Your task to perform on an android device: toggle airplane mode Image 0: 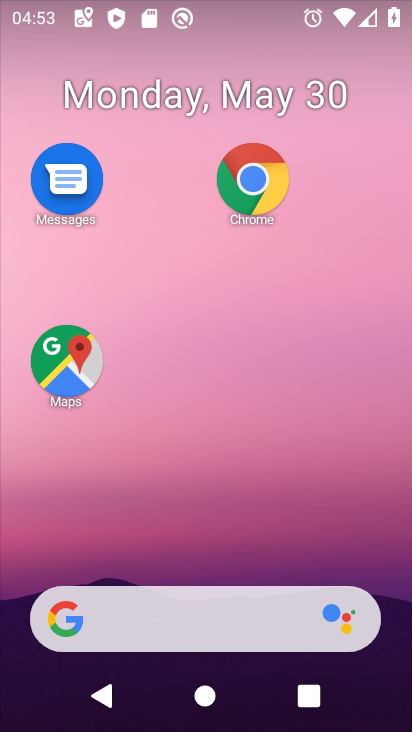
Step 0: drag from (143, 541) to (129, 123)
Your task to perform on an android device: toggle airplane mode Image 1: 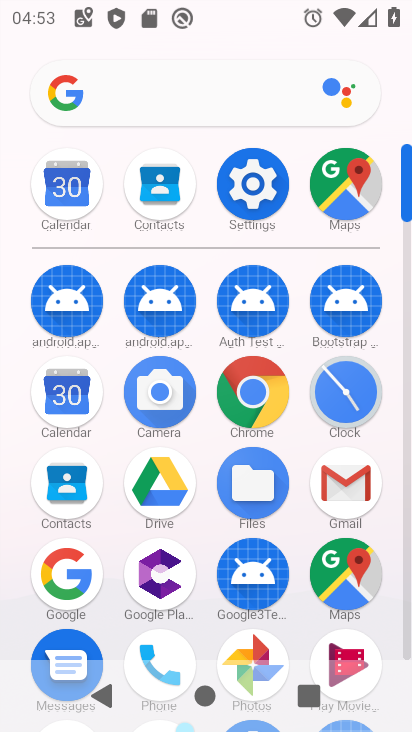
Step 1: drag from (199, 543) to (194, 193)
Your task to perform on an android device: toggle airplane mode Image 2: 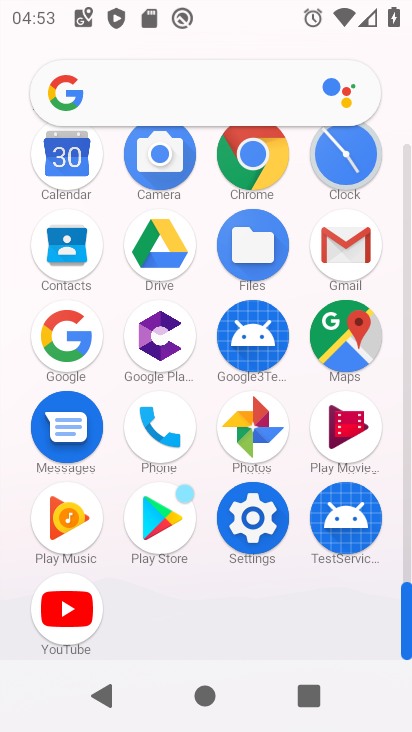
Step 2: drag from (232, 228) to (175, 731)
Your task to perform on an android device: toggle airplane mode Image 3: 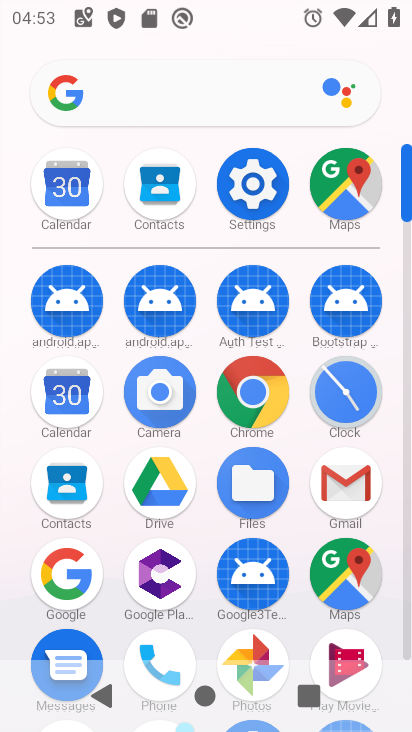
Step 3: click (262, 205)
Your task to perform on an android device: toggle airplane mode Image 4: 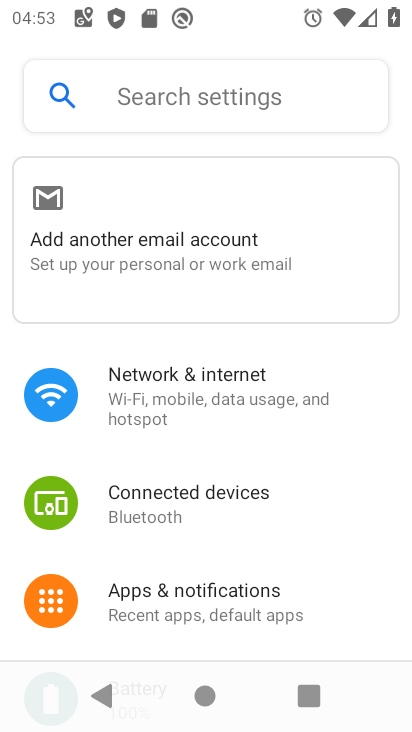
Step 4: click (153, 399)
Your task to perform on an android device: toggle airplane mode Image 5: 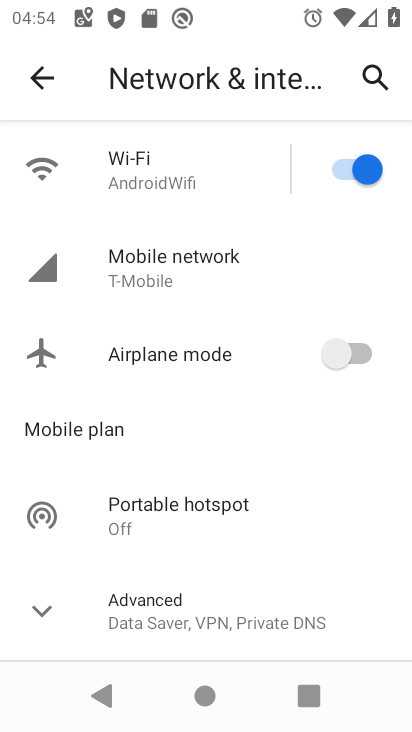
Step 5: click (359, 353)
Your task to perform on an android device: toggle airplane mode Image 6: 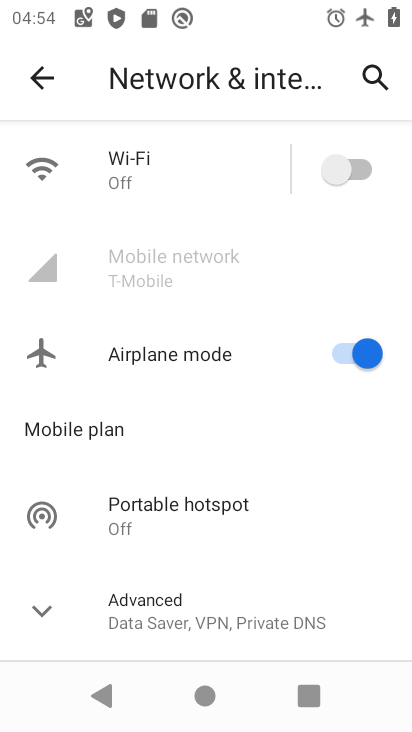
Step 6: task complete